Your task to perform on an android device: Show me the alarms in the clock app Image 0: 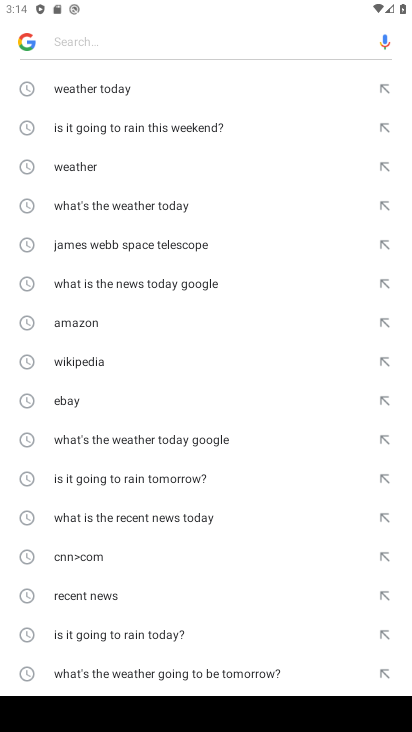
Step 0: press home button
Your task to perform on an android device: Show me the alarms in the clock app Image 1: 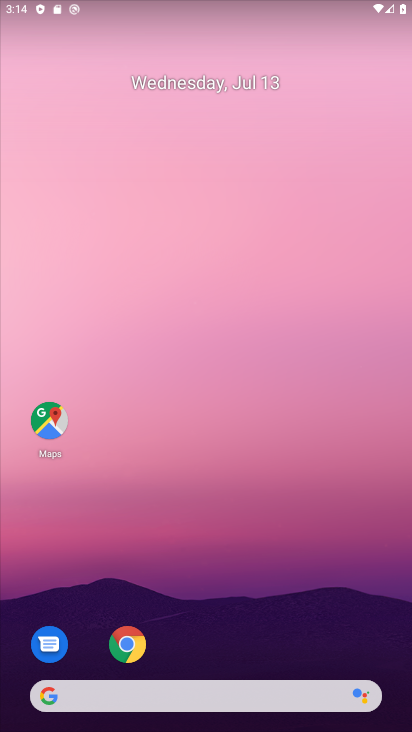
Step 1: drag from (211, 640) to (152, 132)
Your task to perform on an android device: Show me the alarms in the clock app Image 2: 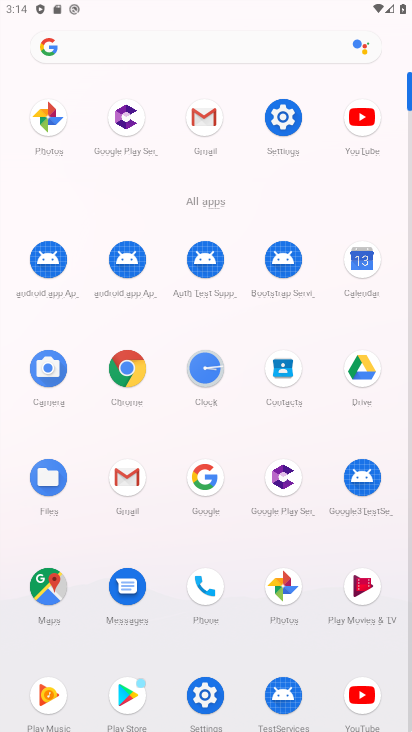
Step 2: click (213, 372)
Your task to perform on an android device: Show me the alarms in the clock app Image 3: 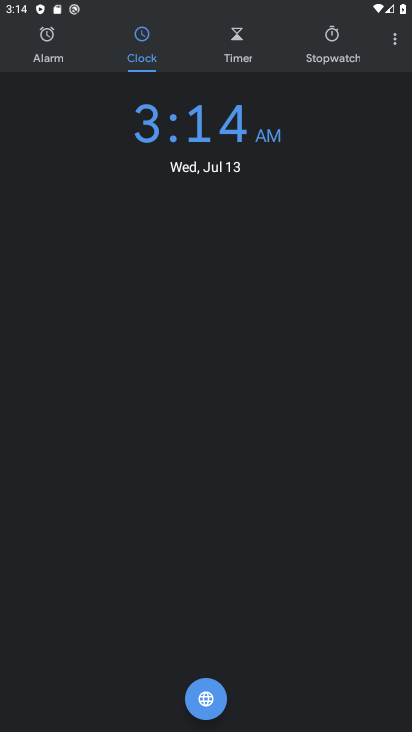
Step 3: click (62, 45)
Your task to perform on an android device: Show me the alarms in the clock app Image 4: 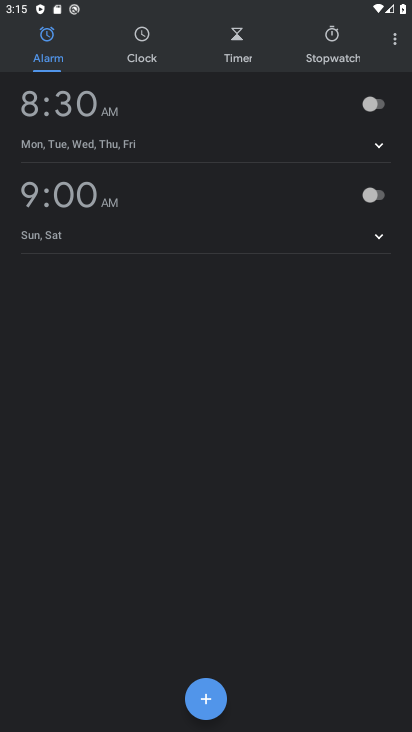
Step 4: task complete